Your task to perform on an android device: open chrome and create a bookmark for the current page Image 0: 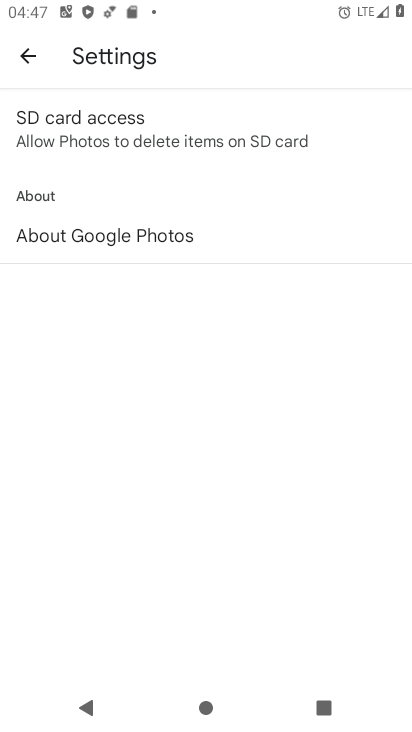
Step 0: press home button
Your task to perform on an android device: open chrome and create a bookmark for the current page Image 1: 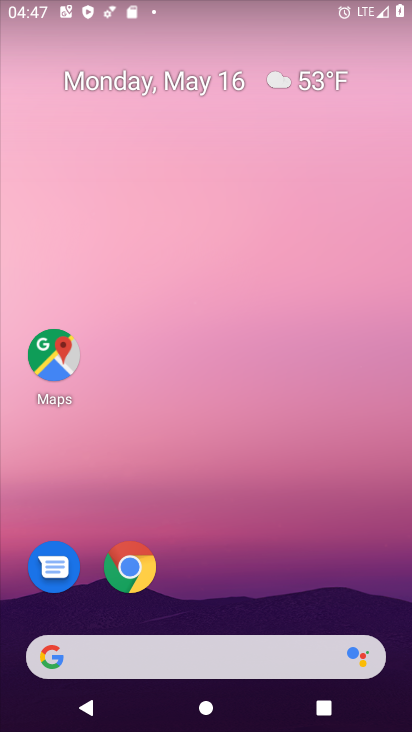
Step 1: drag from (328, 684) to (322, 156)
Your task to perform on an android device: open chrome and create a bookmark for the current page Image 2: 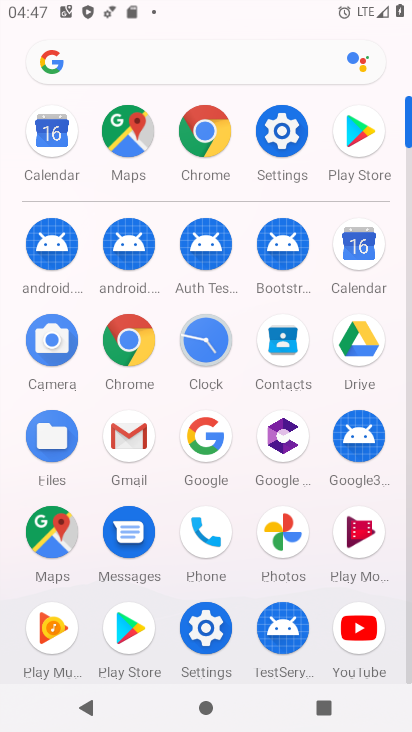
Step 2: click (129, 353)
Your task to perform on an android device: open chrome and create a bookmark for the current page Image 3: 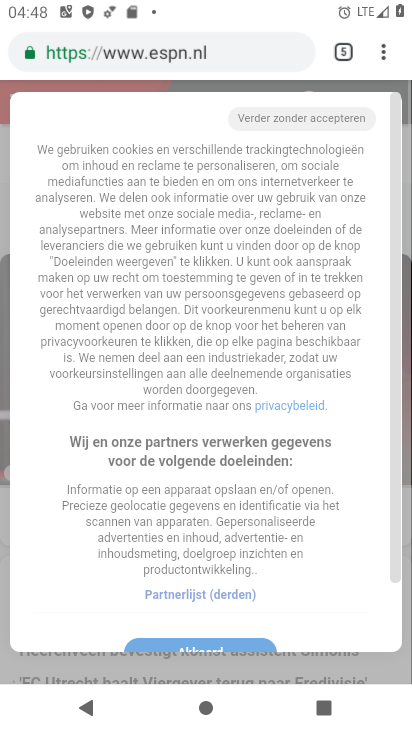
Step 3: click (373, 56)
Your task to perform on an android device: open chrome and create a bookmark for the current page Image 4: 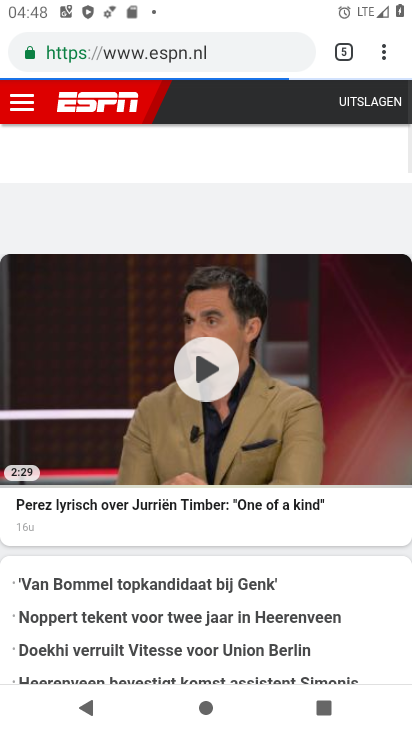
Step 4: click (372, 57)
Your task to perform on an android device: open chrome and create a bookmark for the current page Image 5: 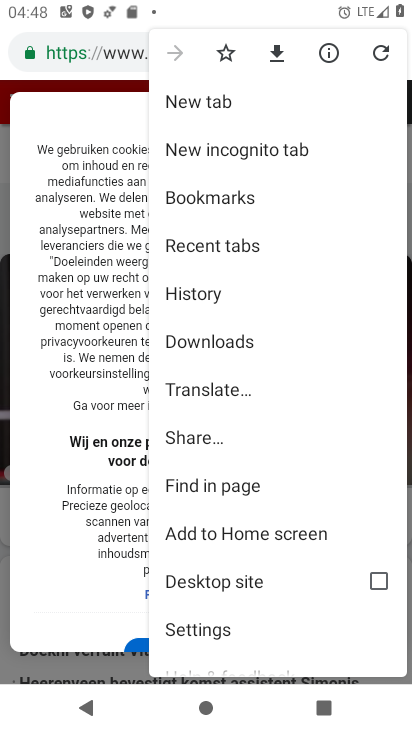
Step 5: drag from (275, 632) to (333, 256)
Your task to perform on an android device: open chrome and create a bookmark for the current page Image 6: 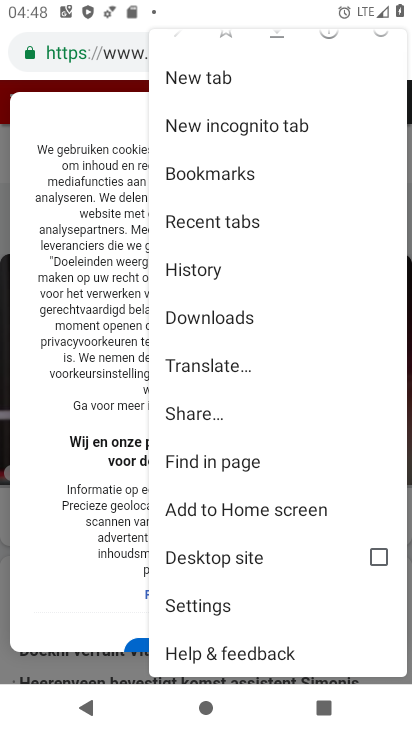
Step 6: click (261, 177)
Your task to perform on an android device: open chrome and create a bookmark for the current page Image 7: 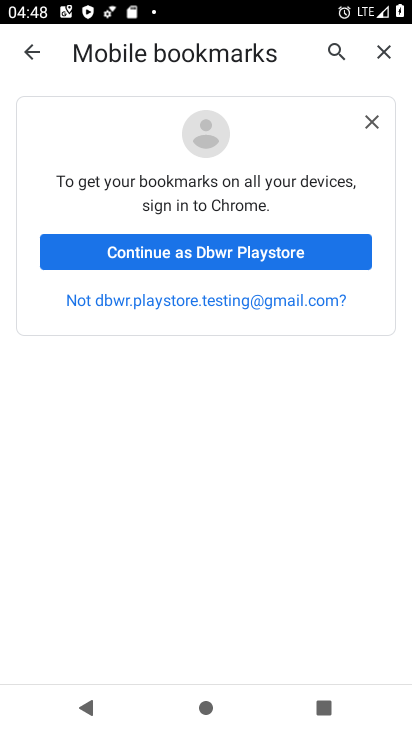
Step 7: task complete